Your task to perform on an android device: Open Yahoo.com Image 0: 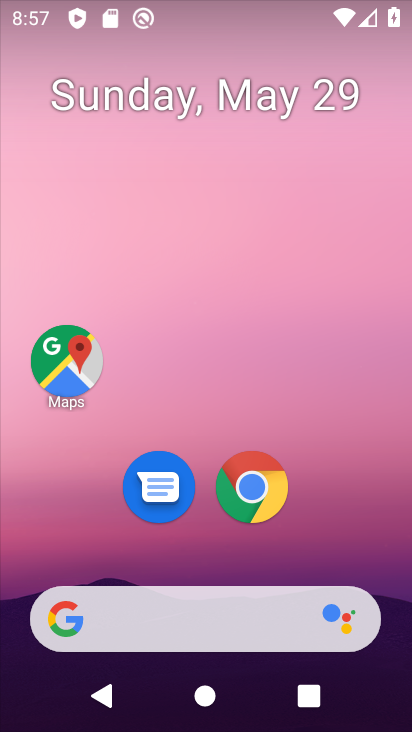
Step 0: click (266, 492)
Your task to perform on an android device: Open Yahoo.com Image 1: 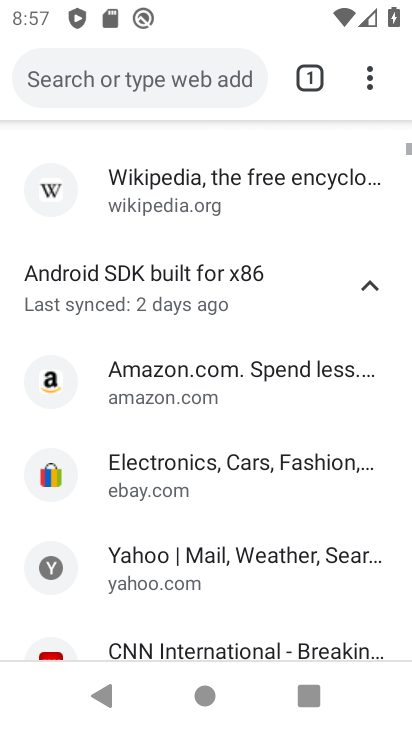
Step 1: click (310, 73)
Your task to perform on an android device: Open Yahoo.com Image 2: 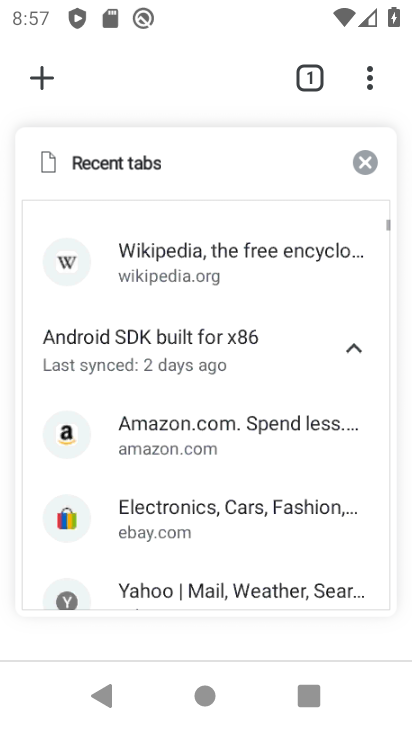
Step 2: click (366, 165)
Your task to perform on an android device: Open Yahoo.com Image 3: 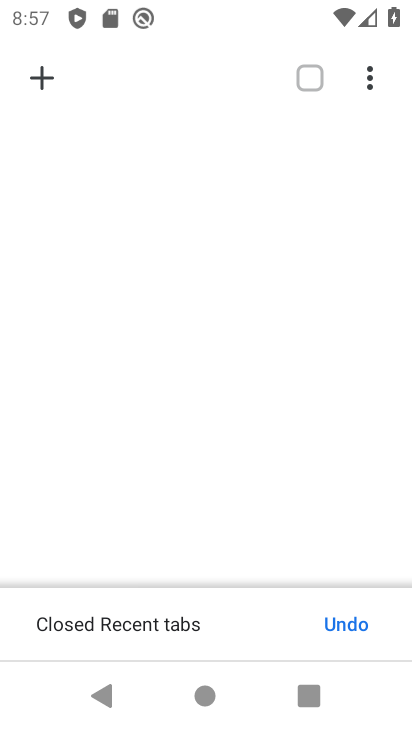
Step 3: click (46, 88)
Your task to perform on an android device: Open Yahoo.com Image 4: 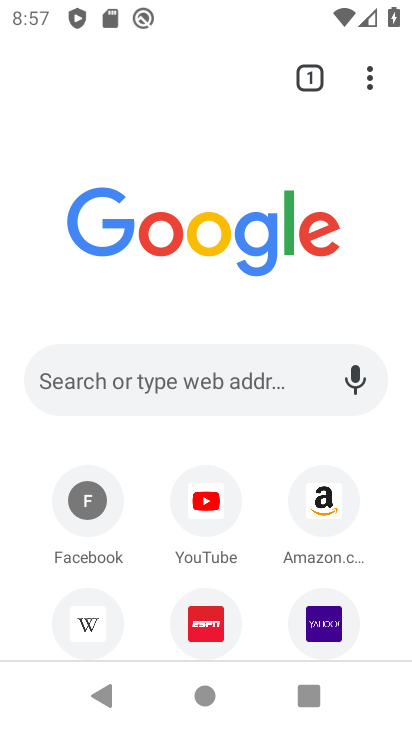
Step 4: click (324, 620)
Your task to perform on an android device: Open Yahoo.com Image 5: 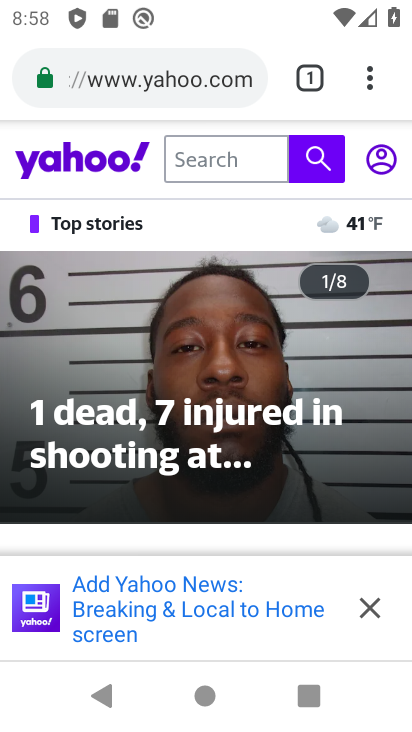
Step 5: task complete